Your task to perform on an android device: Open accessibility settings Image 0: 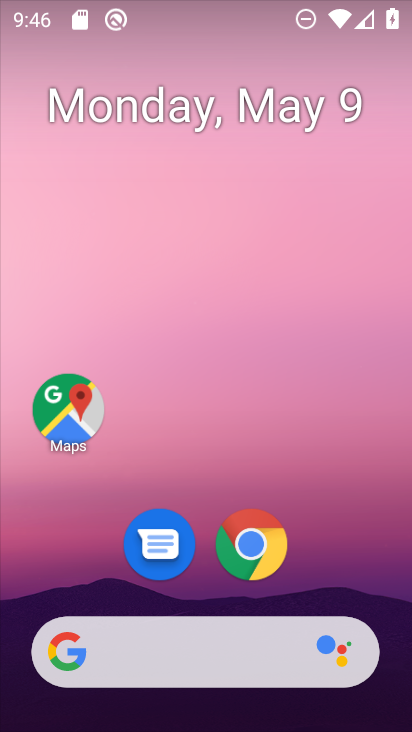
Step 0: drag from (326, 565) to (181, 106)
Your task to perform on an android device: Open accessibility settings Image 1: 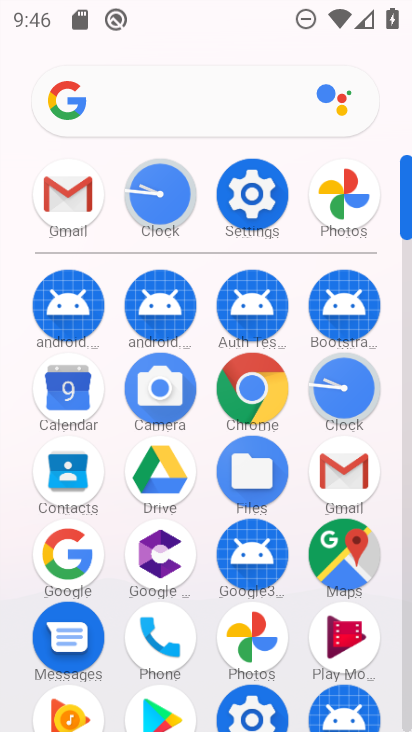
Step 1: click (257, 198)
Your task to perform on an android device: Open accessibility settings Image 2: 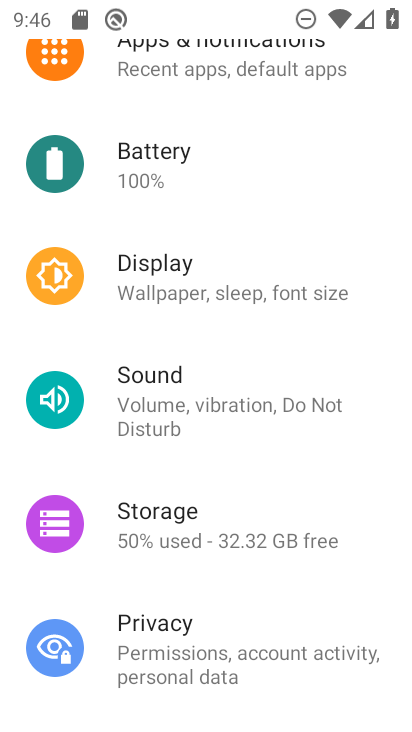
Step 2: drag from (212, 490) to (188, 158)
Your task to perform on an android device: Open accessibility settings Image 3: 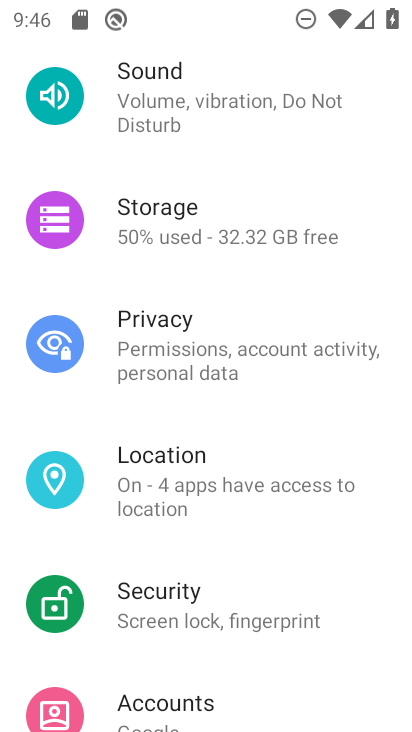
Step 3: drag from (221, 531) to (200, 211)
Your task to perform on an android device: Open accessibility settings Image 4: 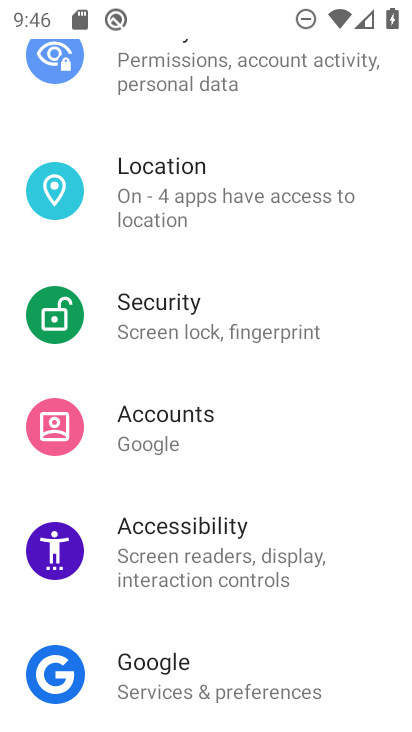
Step 4: click (190, 527)
Your task to perform on an android device: Open accessibility settings Image 5: 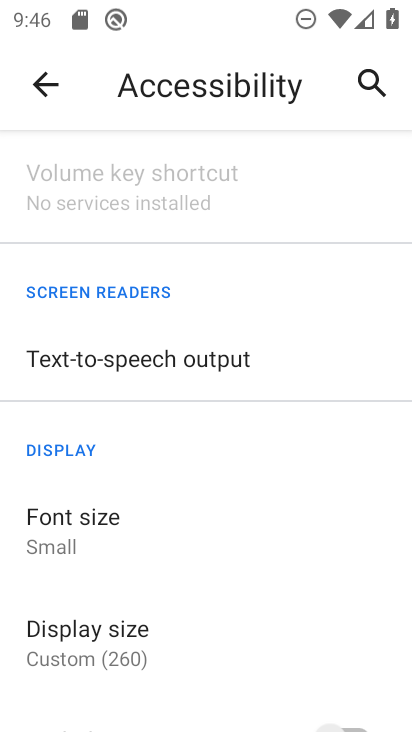
Step 5: task complete